Your task to perform on an android device: change the upload size in google photos Image 0: 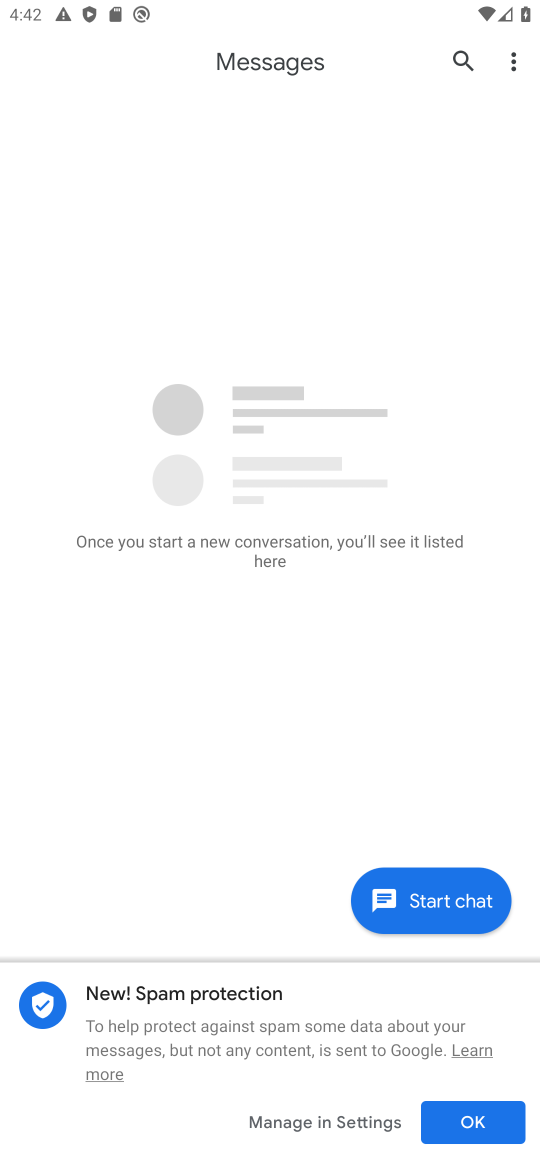
Step 0: press home button
Your task to perform on an android device: change the upload size in google photos Image 1: 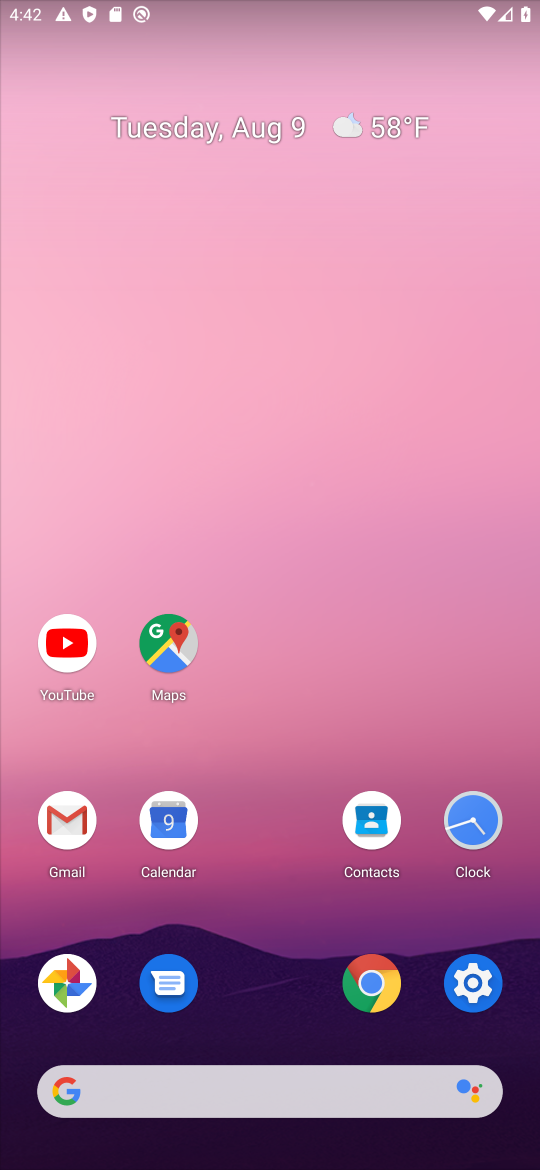
Step 1: click (67, 977)
Your task to perform on an android device: change the upload size in google photos Image 2: 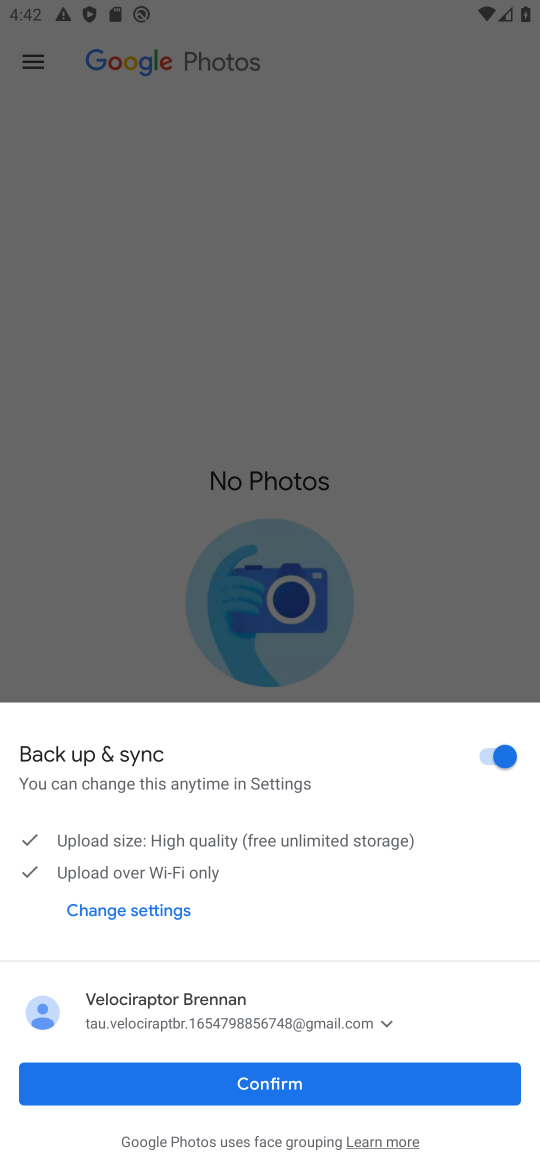
Step 2: click (267, 1100)
Your task to perform on an android device: change the upload size in google photos Image 3: 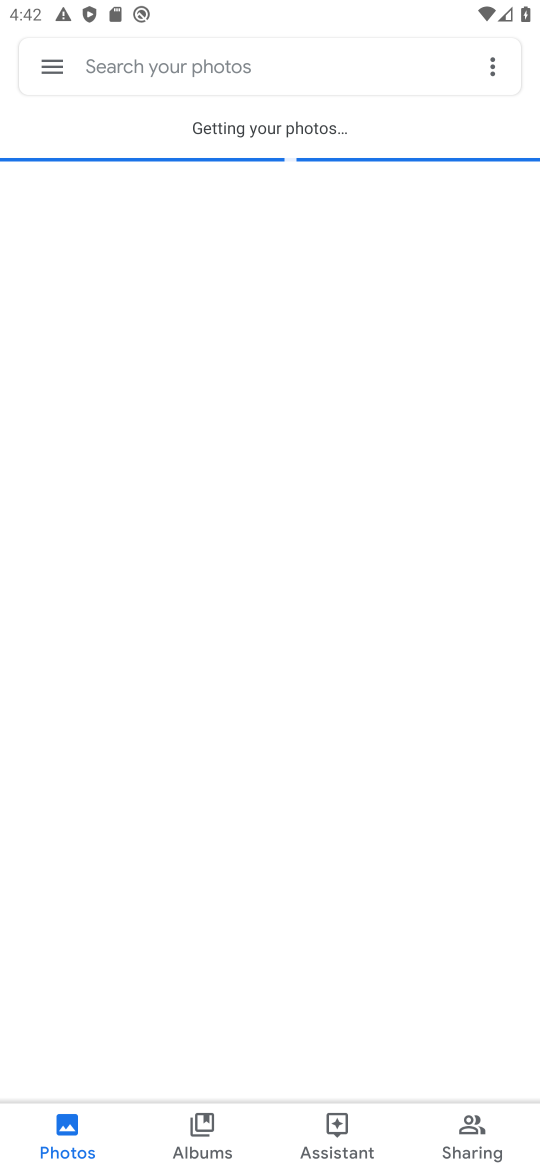
Step 3: click (60, 69)
Your task to perform on an android device: change the upload size in google photos Image 4: 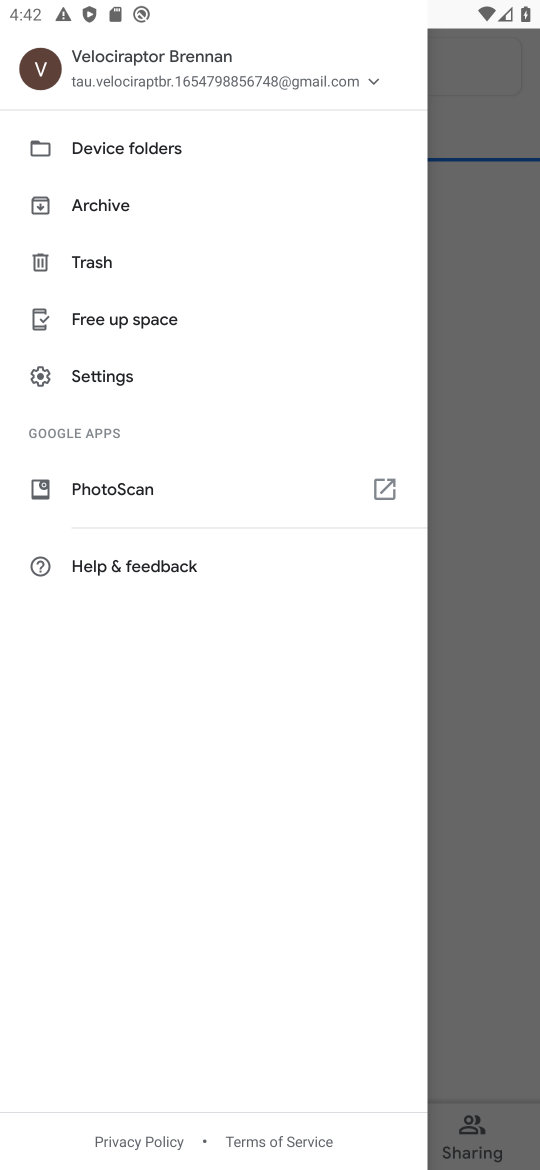
Step 4: click (119, 369)
Your task to perform on an android device: change the upload size in google photos Image 5: 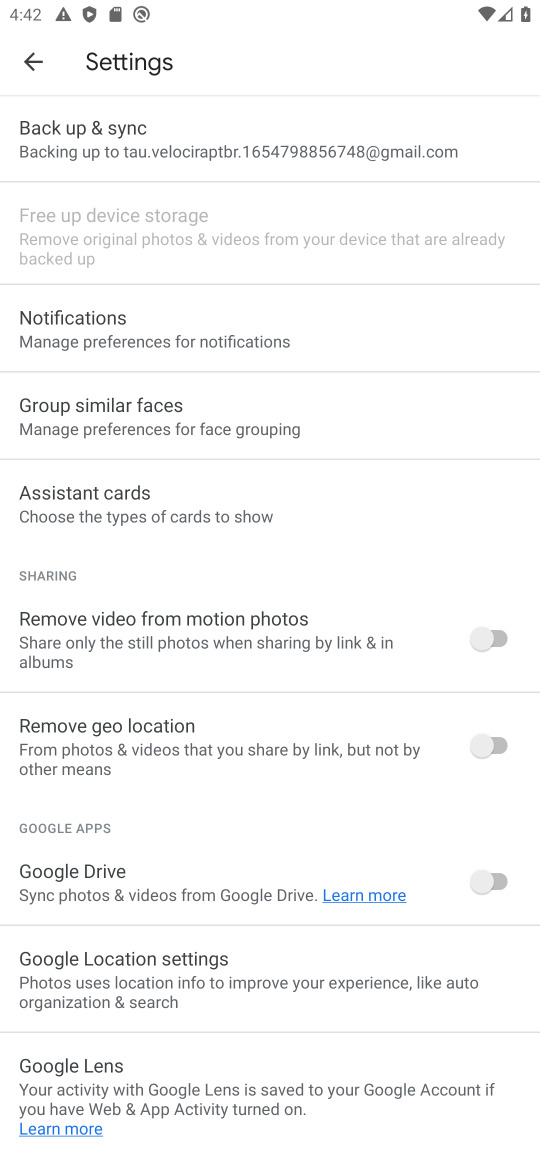
Step 5: click (52, 138)
Your task to perform on an android device: change the upload size in google photos Image 6: 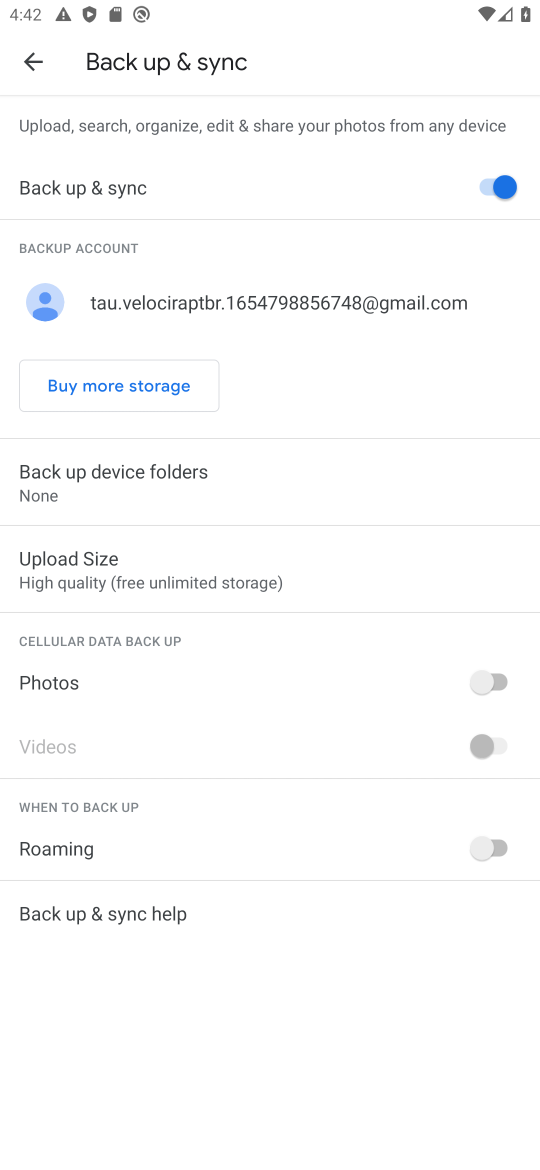
Step 6: click (99, 573)
Your task to perform on an android device: change the upload size in google photos Image 7: 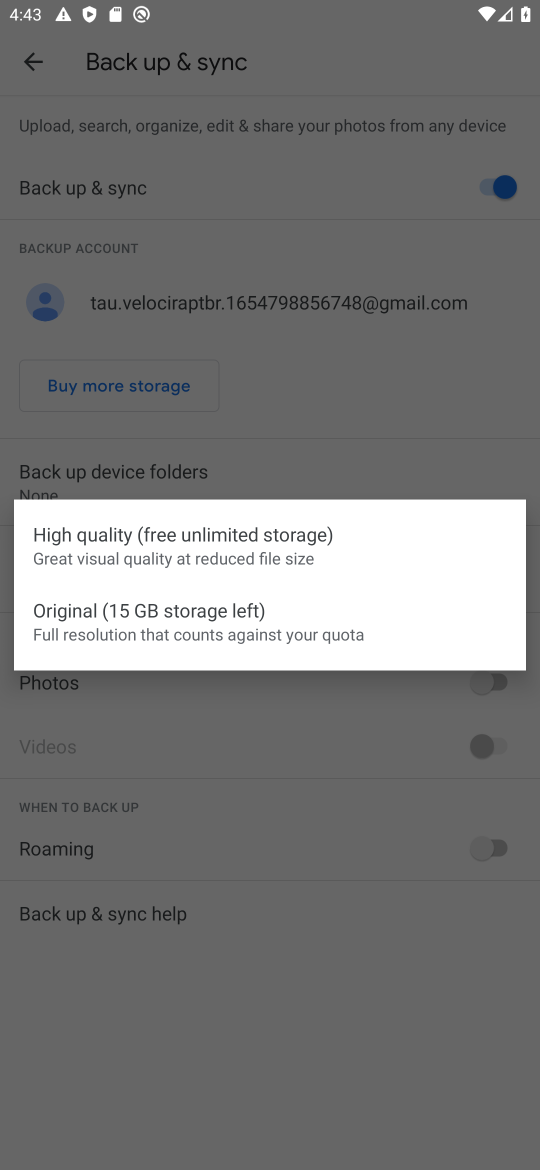
Step 7: task complete